Your task to perform on an android device: turn off picture-in-picture Image 0: 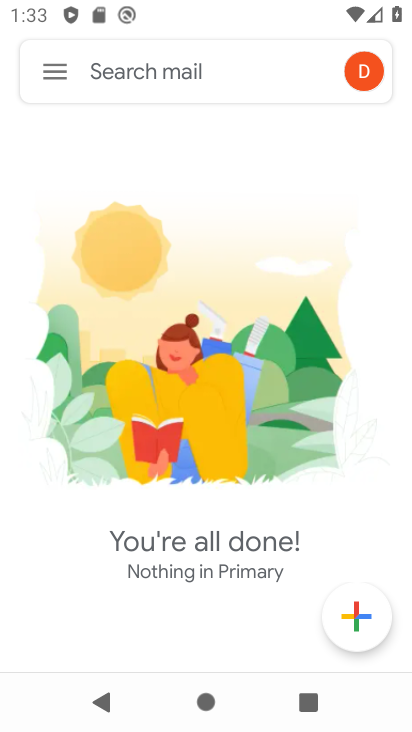
Step 0: drag from (260, 549) to (300, 221)
Your task to perform on an android device: turn off picture-in-picture Image 1: 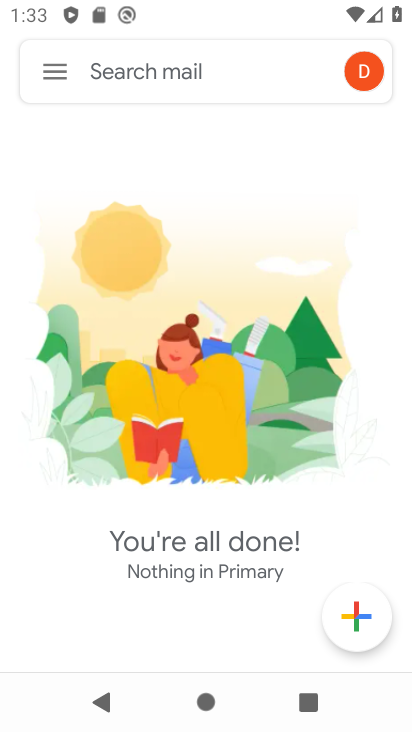
Step 1: press home button
Your task to perform on an android device: turn off picture-in-picture Image 2: 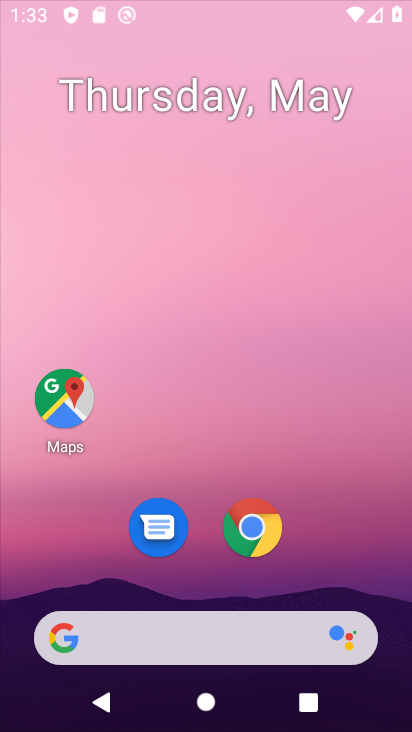
Step 2: drag from (155, 573) to (212, 58)
Your task to perform on an android device: turn off picture-in-picture Image 3: 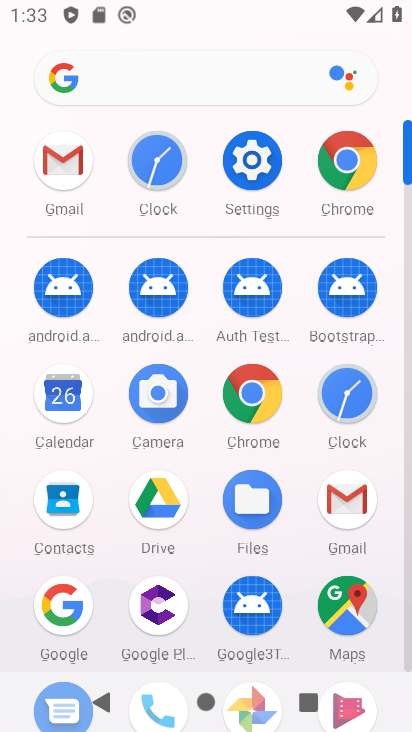
Step 3: click (249, 163)
Your task to perform on an android device: turn off picture-in-picture Image 4: 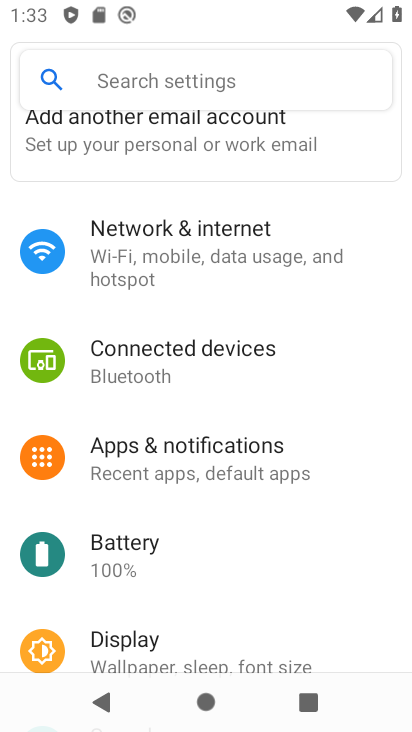
Step 4: click (173, 460)
Your task to perform on an android device: turn off picture-in-picture Image 5: 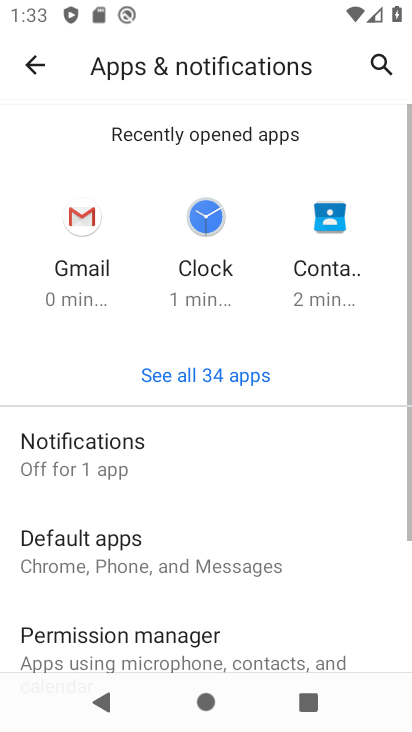
Step 5: drag from (176, 626) to (159, 0)
Your task to perform on an android device: turn off picture-in-picture Image 6: 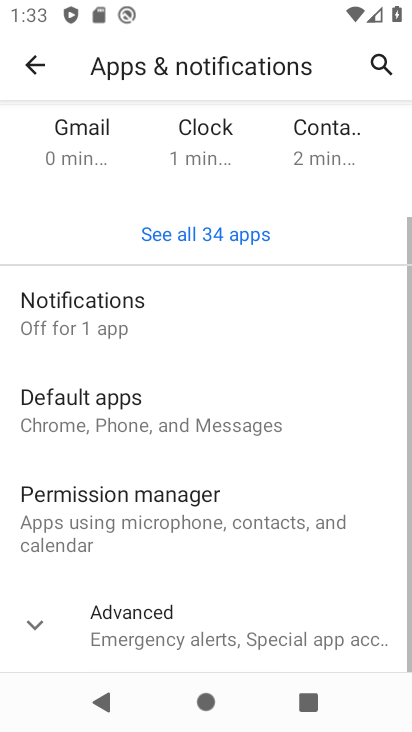
Step 6: click (175, 625)
Your task to perform on an android device: turn off picture-in-picture Image 7: 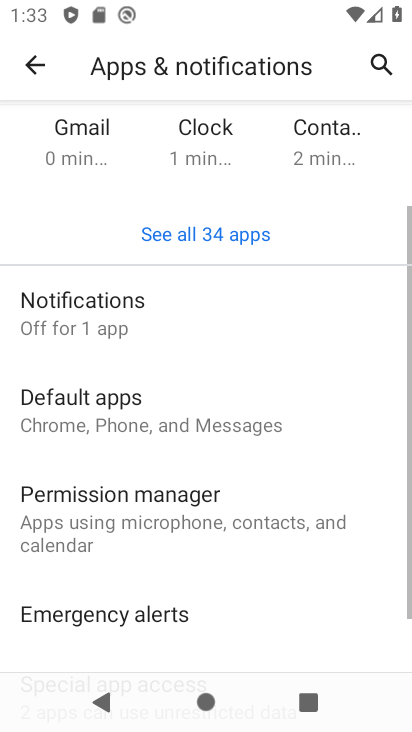
Step 7: drag from (195, 588) to (251, 169)
Your task to perform on an android device: turn off picture-in-picture Image 8: 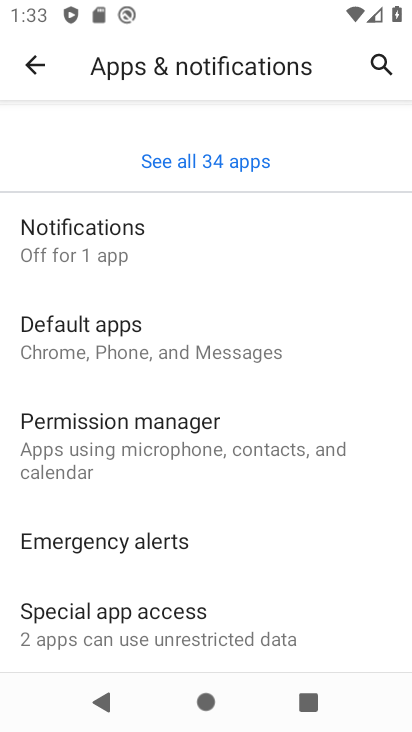
Step 8: click (154, 640)
Your task to perform on an android device: turn off picture-in-picture Image 9: 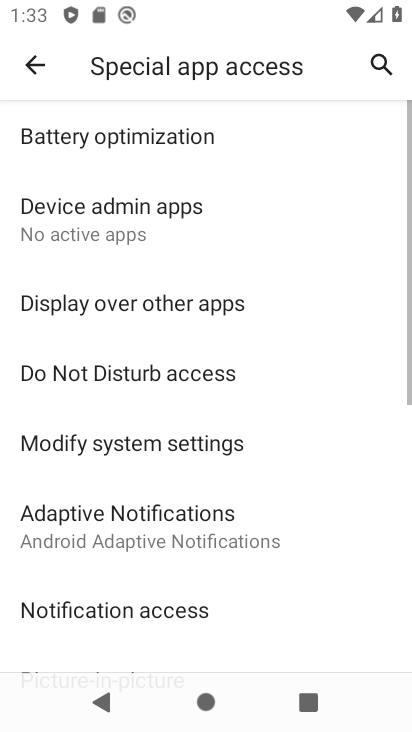
Step 9: drag from (145, 596) to (212, 232)
Your task to perform on an android device: turn off picture-in-picture Image 10: 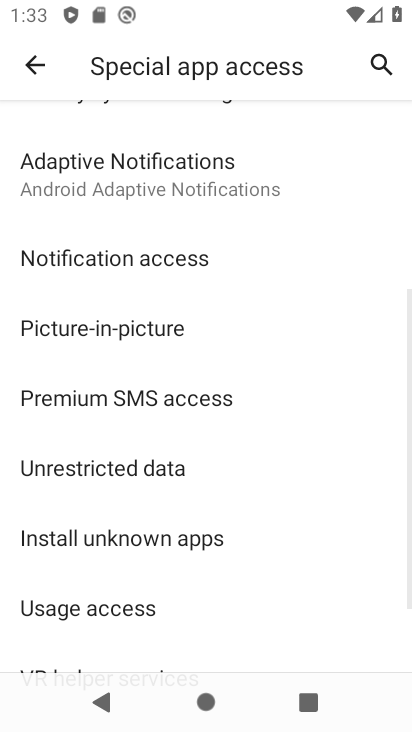
Step 10: drag from (212, 252) to (226, 291)
Your task to perform on an android device: turn off picture-in-picture Image 11: 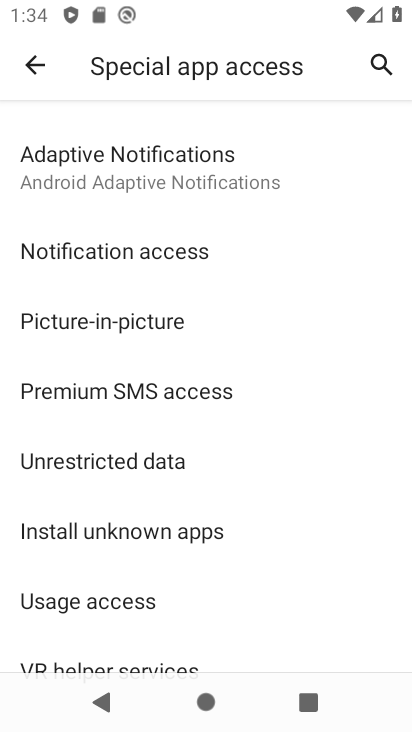
Step 11: click (92, 312)
Your task to perform on an android device: turn off picture-in-picture Image 12: 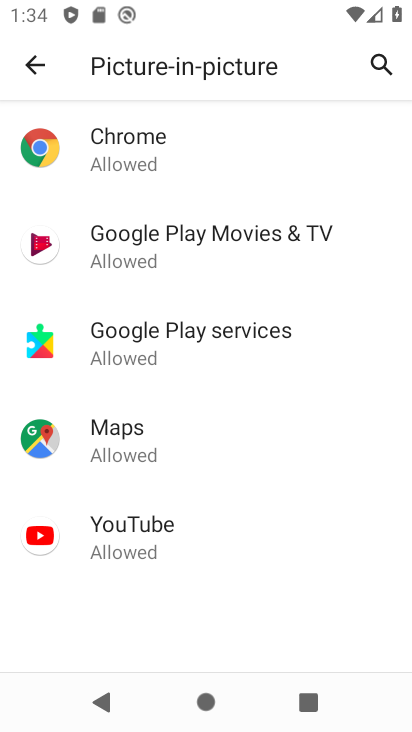
Step 12: task complete